Your task to perform on an android device: Show me popular videos on Youtube Image 0: 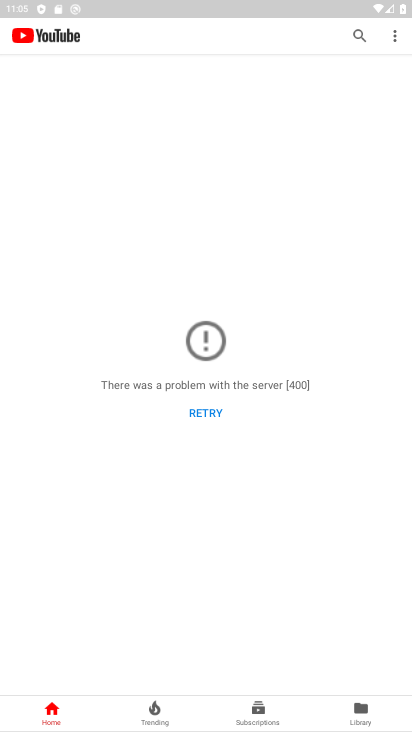
Step 0: click (358, 707)
Your task to perform on an android device: Show me popular videos on Youtube Image 1: 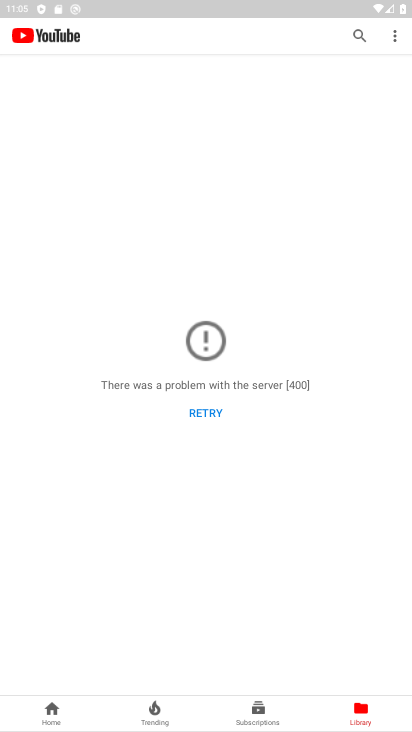
Step 1: task complete